Your task to perform on an android device: toggle priority inbox in the gmail app Image 0: 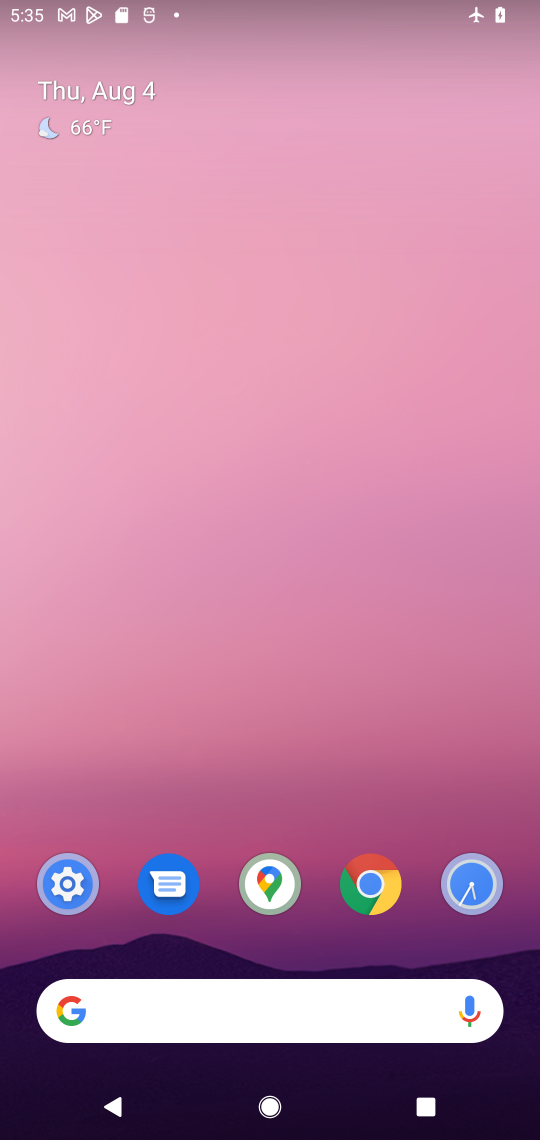
Step 0: drag from (297, 956) to (313, 58)
Your task to perform on an android device: toggle priority inbox in the gmail app Image 1: 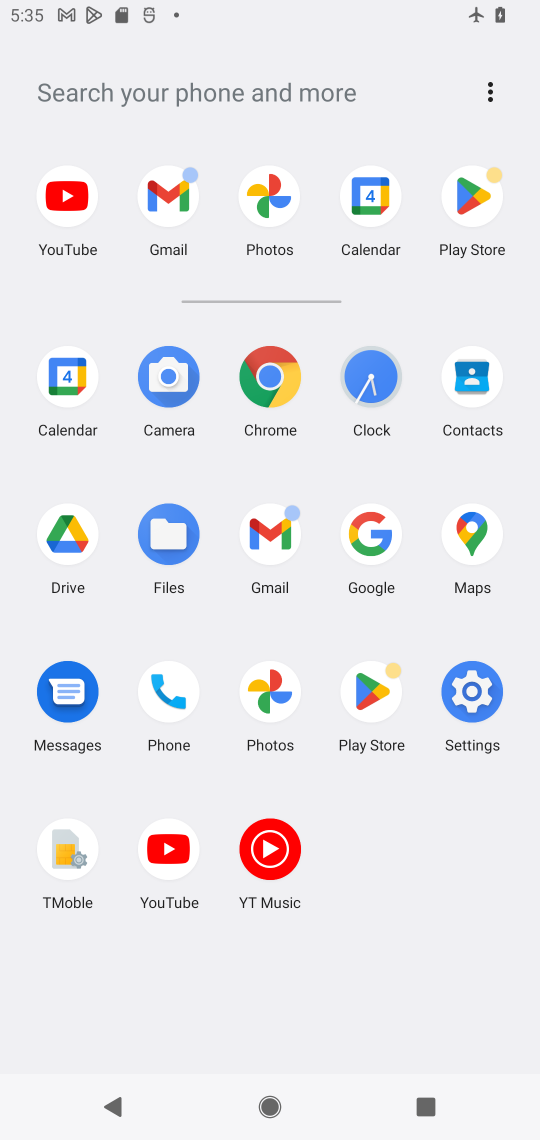
Step 1: click (177, 239)
Your task to perform on an android device: toggle priority inbox in the gmail app Image 2: 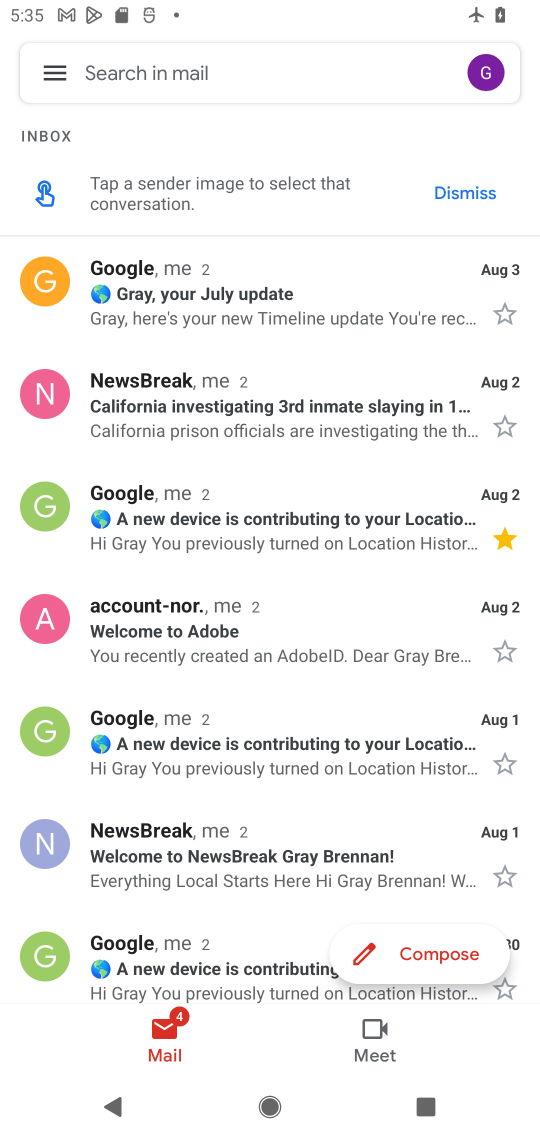
Step 2: click (68, 98)
Your task to perform on an android device: toggle priority inbox in the gmail app Image 3: 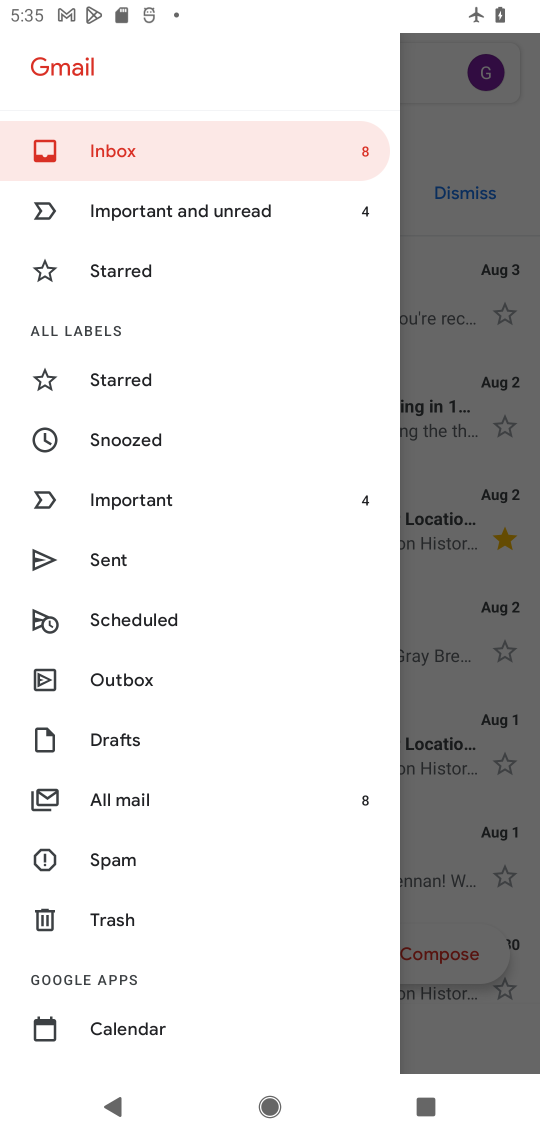
Step 3: drag from (215, 927) to (196, 171)
Your task to perform on an android device: toggle priority inbox in the gmail app Image 4: 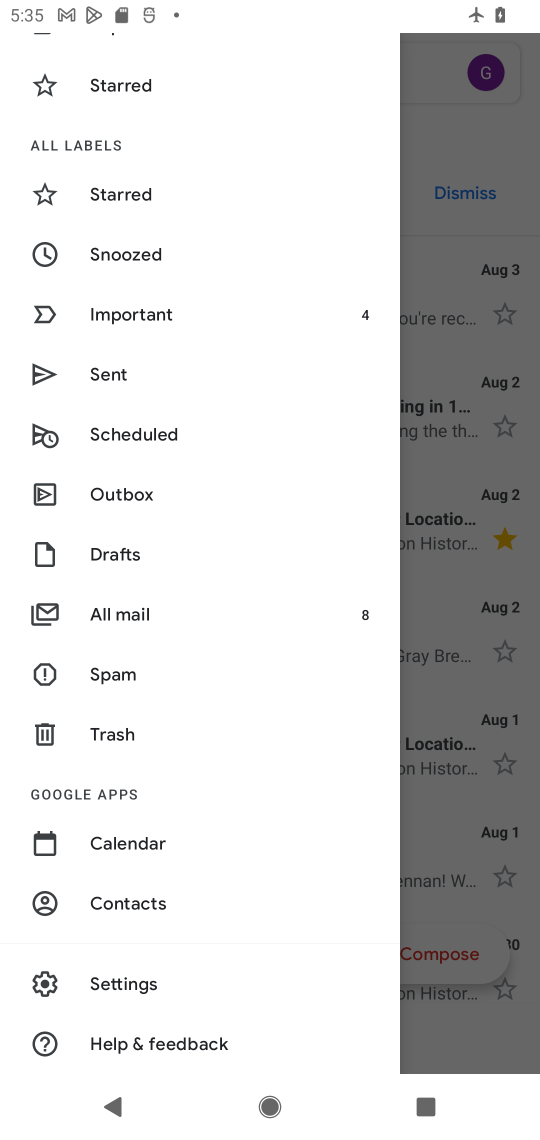
Step 4: click (197, 970)
Your task to perform on an android device: toggle priority inbox in the gmail app Image 5: 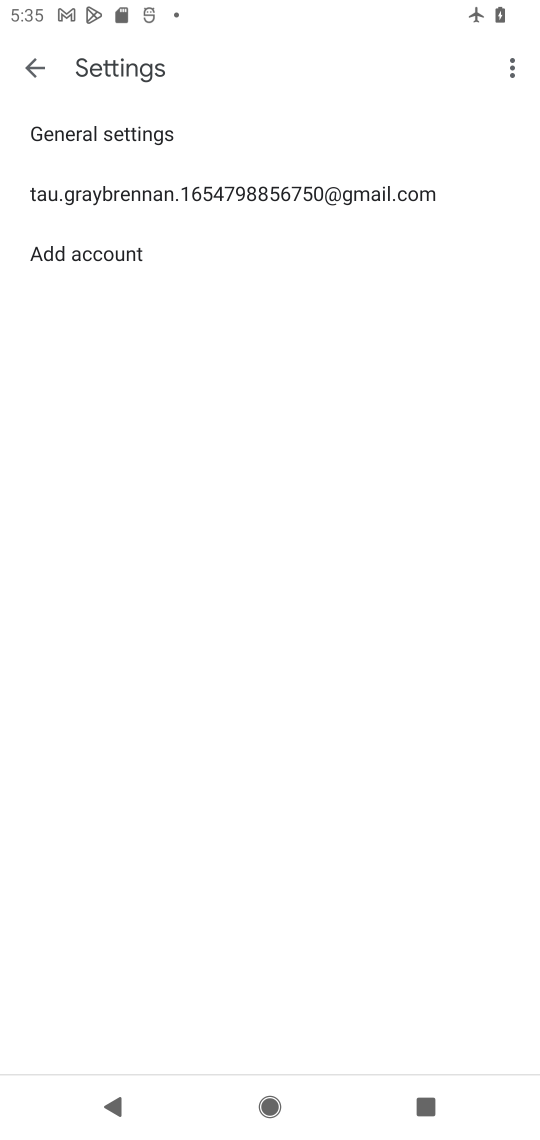
Step 5: click (178, 210)
Your task to perform on an android device: toggle priority inbox in the gmail app Image 6: 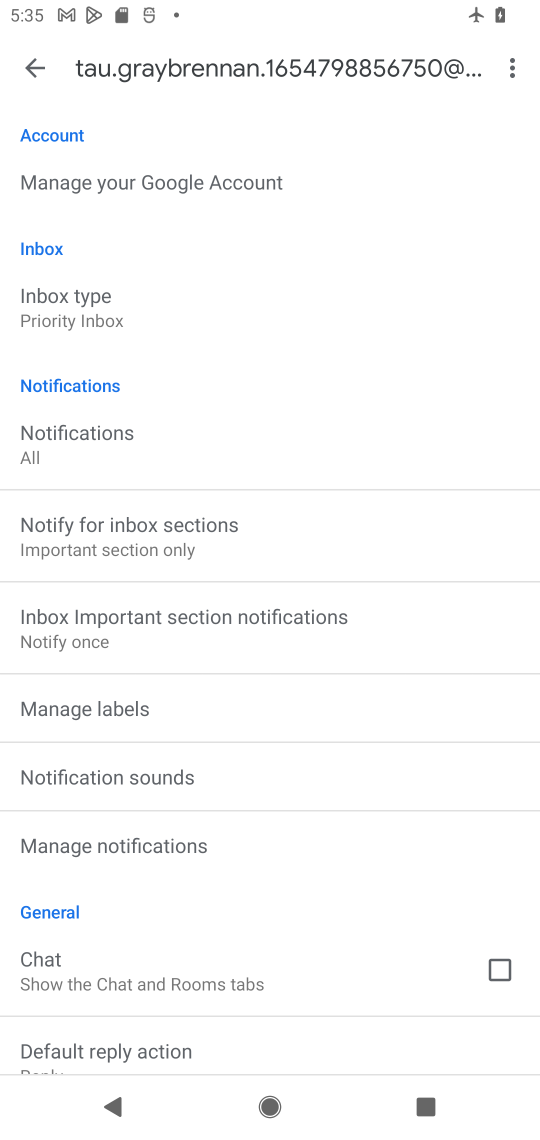
Step 6: click (352, 287)
Your task to perform on an android device: toggle priority inbox in the gmail app Image 7: 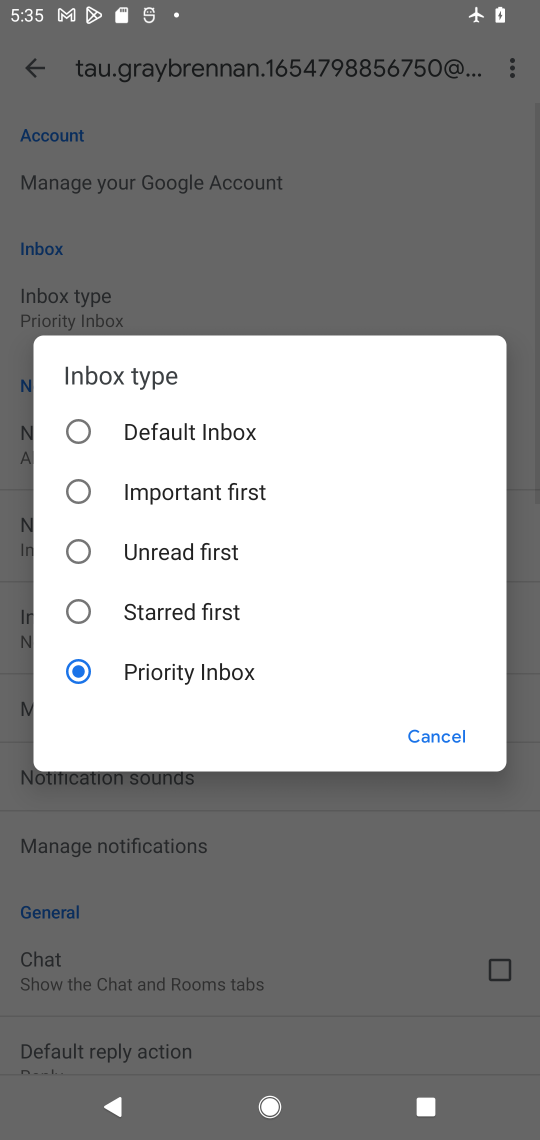
Step 7: click (147, 481)
Your task to perform on an android device: toggle priority inbox in the gmail app Image 8: 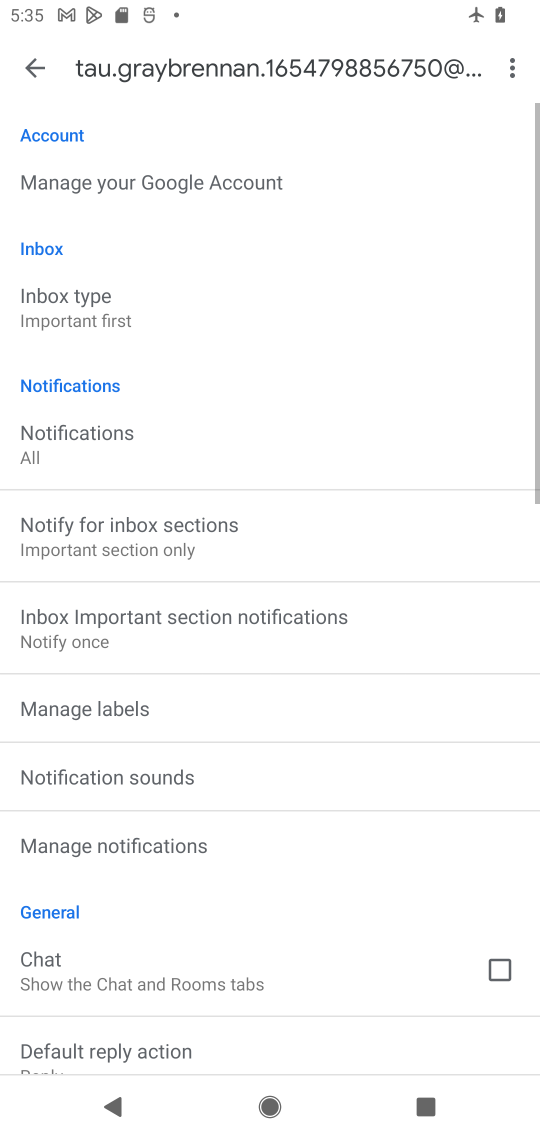
Step 8: task complete